Your task to perform on an android device: Go to Maps Image 0: 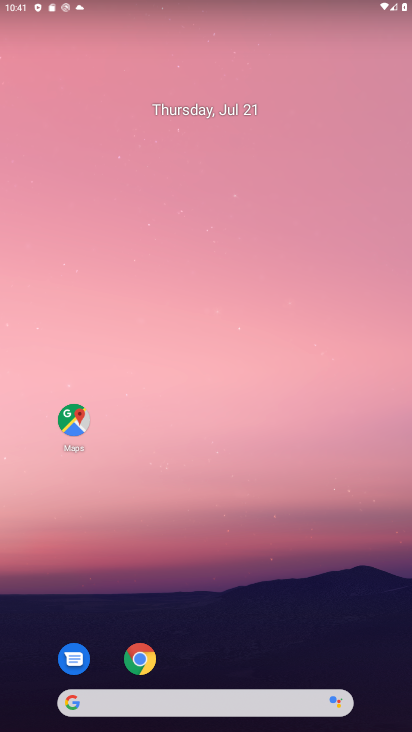
Step 0: click (83, 424)
Your task to perform on an android device: Go to Maps Image 1: 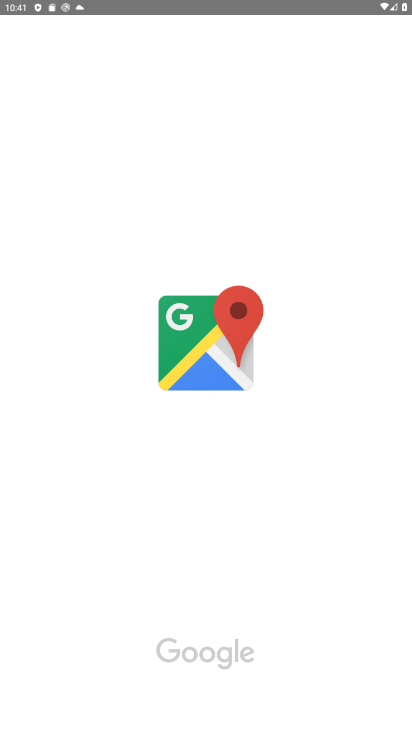
Step 1: task complete